Your task to perform on an android device: Do I have any events today? Image 0: 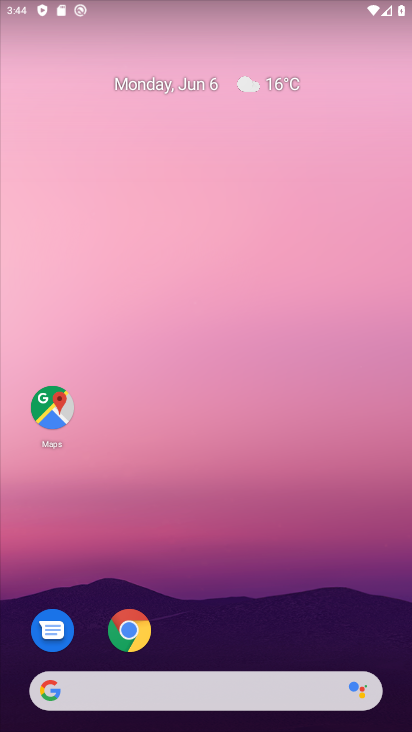
Step 0: drag from (192, 639) to (331, 159)
Your task to perform on an android device: Do I have any events today? Image 1: 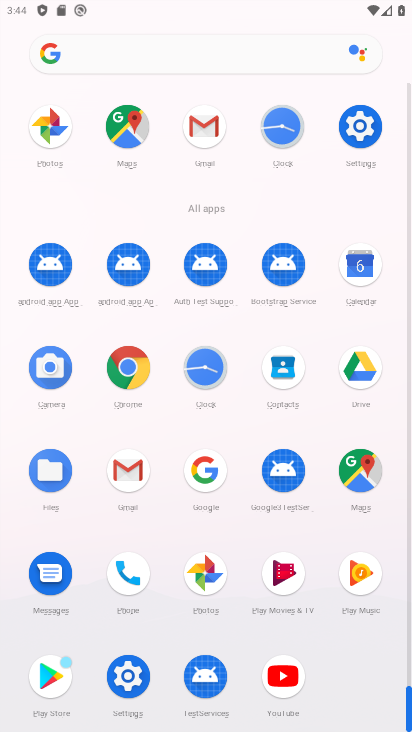
Step 1: click (349, 271)
Your task to perform on an android device: Do I have any events today? Image 2: 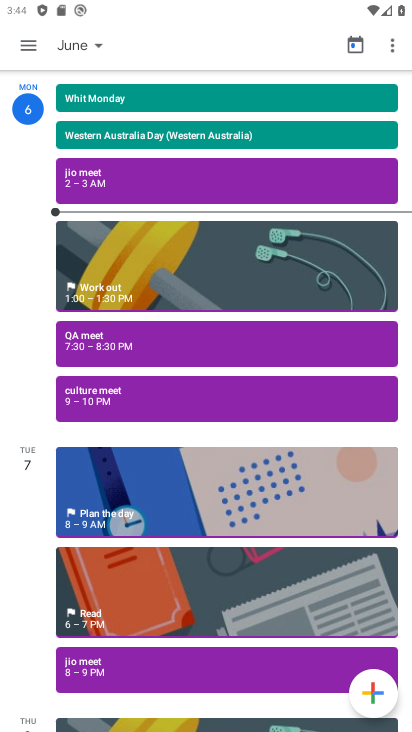
Step 2: task complete